Your task to perform on an android device: Open the phone app and click the voicemail tab. Image 0: 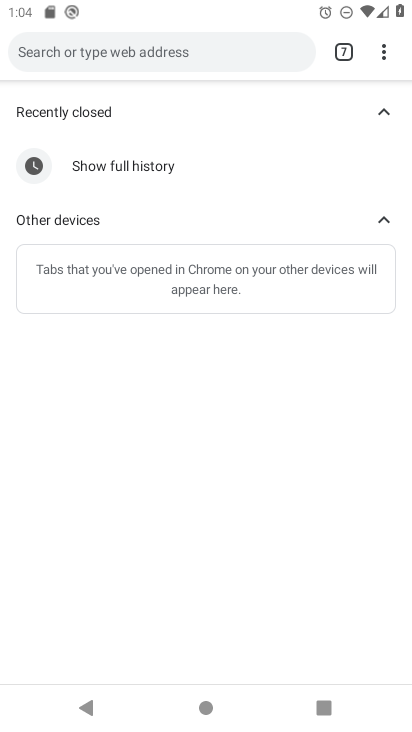
Step 0: press home button
Your task to perform on an android device: Open the phone app and click the voicemail tab. Image 1: 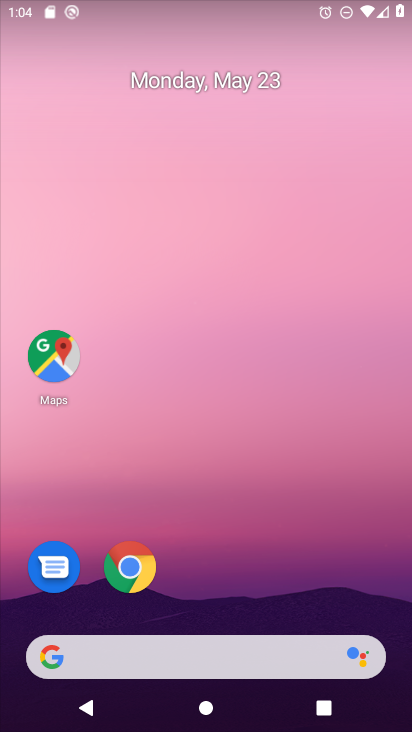
Step 1: drag from (218, 610) to (300, 33)
Your task to perform on an android device: Open the phone app and click the voicemail tab. Image 2: 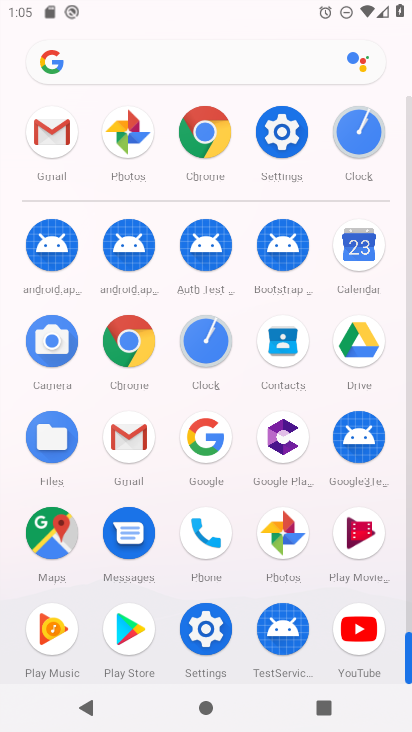
Step 2: click (198, 555)
Your task to perform on an android device: Open the phone app and click the voicemail tab. Image 3: 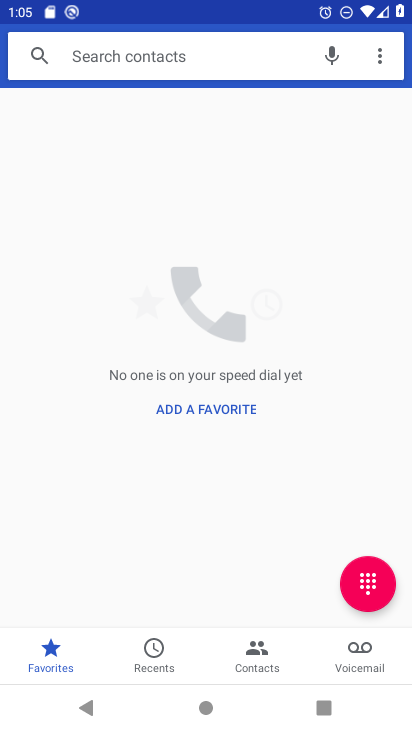
Step 3: click (363, 655)
Your task to perform on an android device: Open the phone app and click the voicemail tab. Image 4: 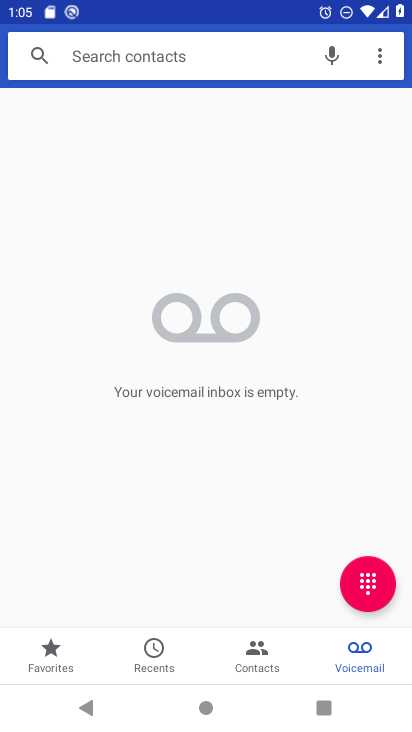
Step 4: task complete